Your task to perform on an android device: open chrome and create a bookmark for the current page Image 0: 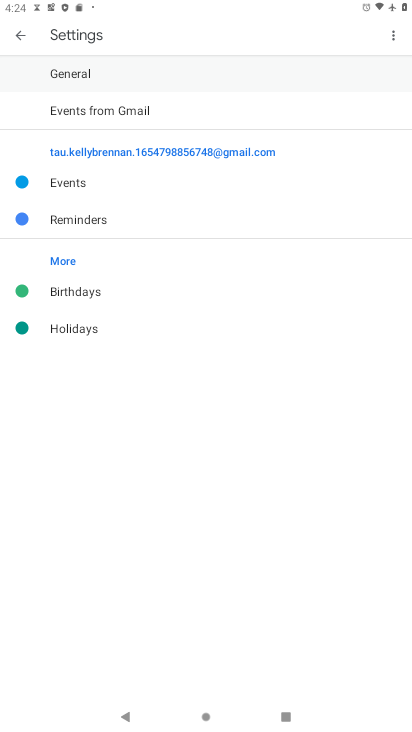
Step 0: click (24, 36)
Your task to perform on an android device: open chrome and create a bookmark for the current page Image 1: 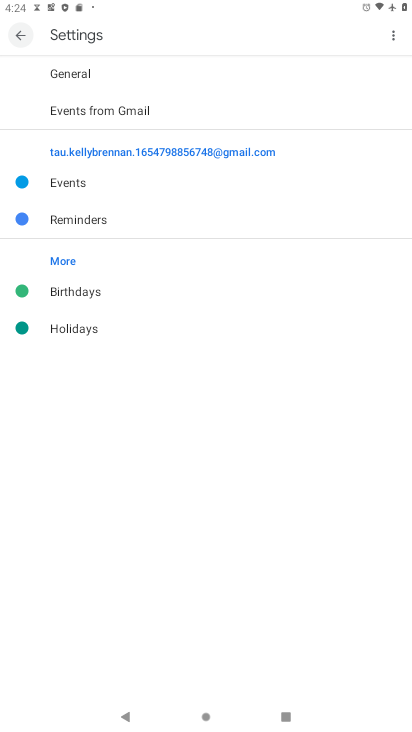
Step 1: click (22, 32)
Your task to perform on an android device: open chrome and create a bookmark for the current page Image 2: 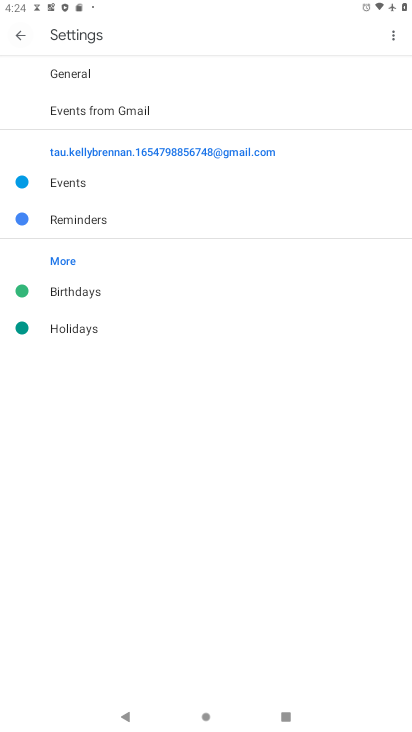
Step 2: click (22, 32)
Your task to perform on an android device: open chrome and create a bookmark for the current page Image 3: 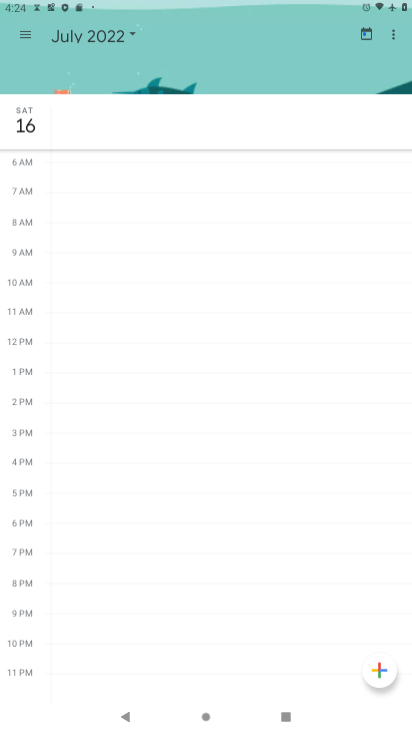
Step 3: click (22, 32)
Your task to perform on an android device: open chrome and create a bookmark for the current page Image 4: 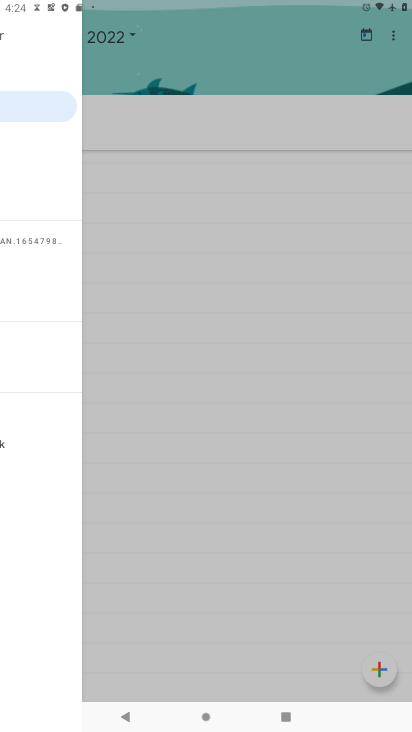
Step 4: click (21, 31)
Your task to perform on an android device: open chrome and create a bookmark for the current page Image 5: 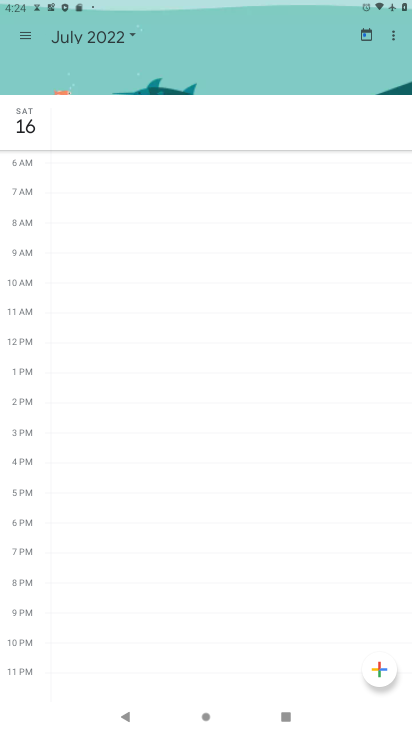
Step 5: press home button
Your task to perform on an android device: open chrome and create a bookmark for the current page Image 6: 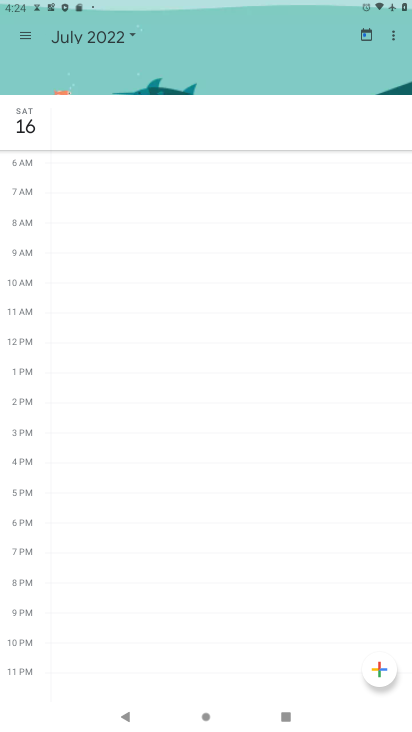
Step 6: press home button
Your task to perform on an android device: open chrome and create a bookmark for the current page Image 7: 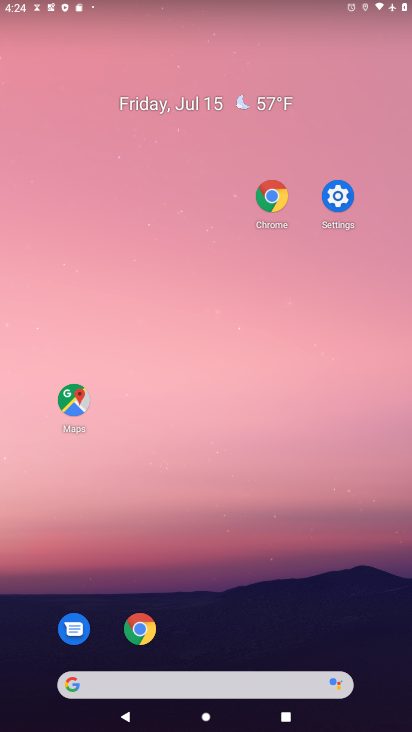
Step 7: drag from (341, 626) to (261, 95)
Your task to perform on an android device: open chrome and create a bookmark for the current page Image 8: 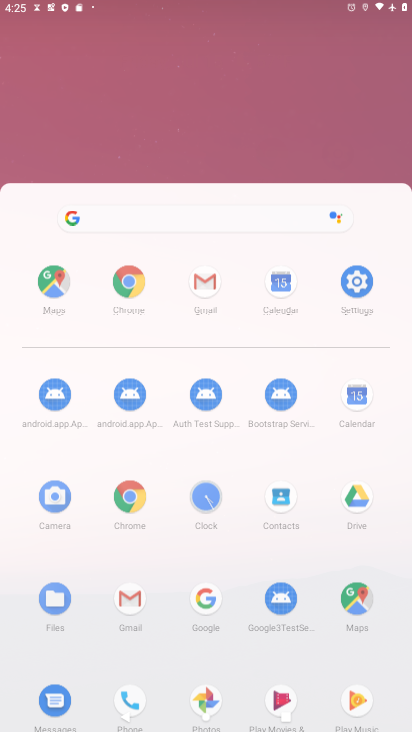
Step 8: drag from (297, 562) to (261, 120)
Your task to perform on an android device: open chrome and create a bookmark for the current page Image 9: 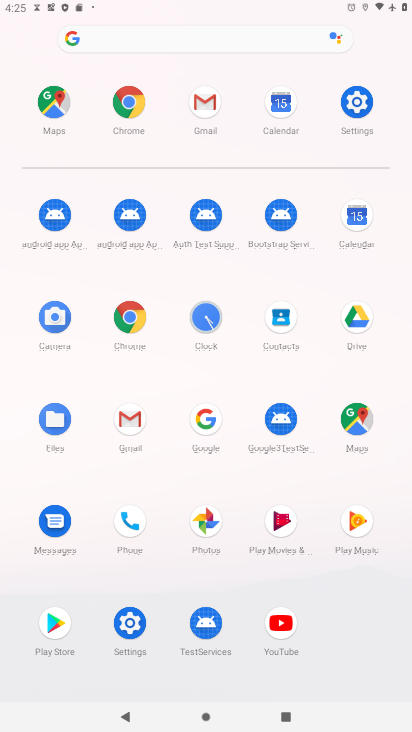
Step 9: drag from (198, 503) to (188, 138)
Your task to perform on an android device: open chrome and create a bookmark for the current page Image 10: 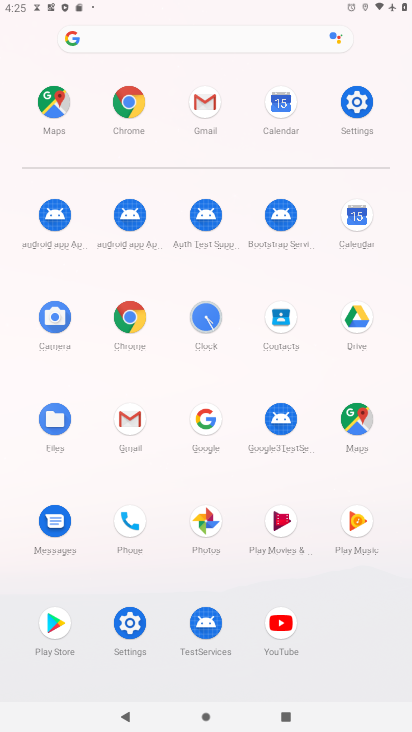
Step 10: click (126, 105)
Your task to perform on an android device: open chrome and create a bookmark for the current page Image 11: 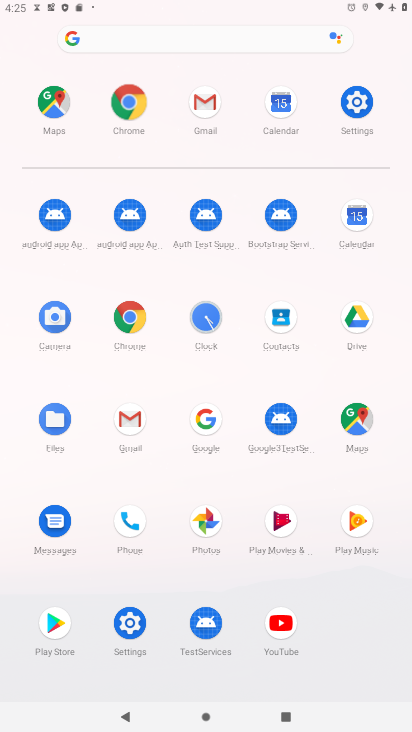
Step 11: click (131, 102)
Your task to perform on an android device: open chrome and create a bookmark for the current page Image 12: 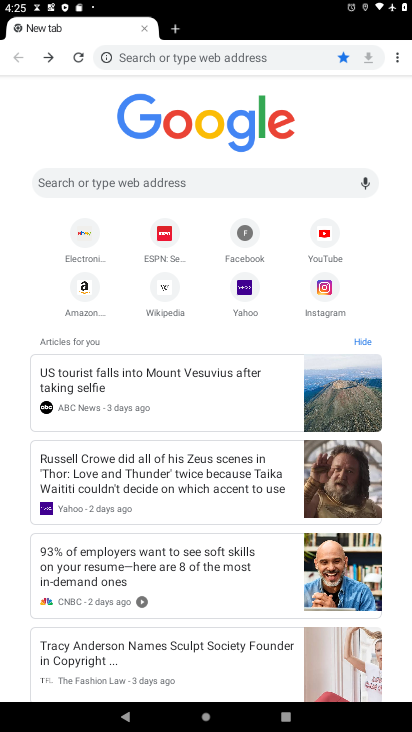
Step 12: click (69, 172)
Your task to perform on an android device: open chrome and create a bookmark for the current page Image 13: 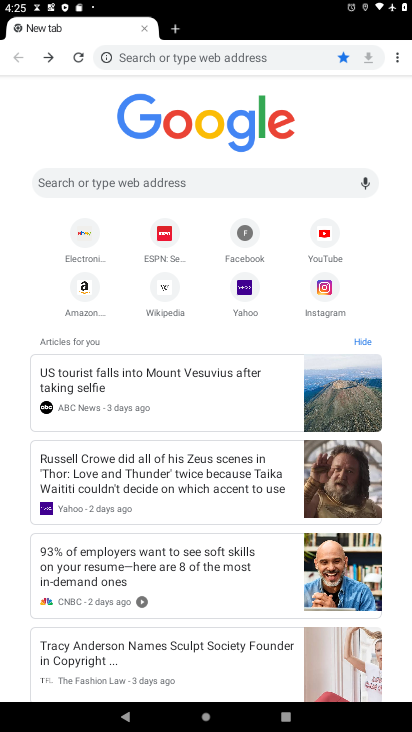
Step 13: click (78, 182)
Your task to perform on an android device: open chrome and create a bookmark for the current page Image 14: 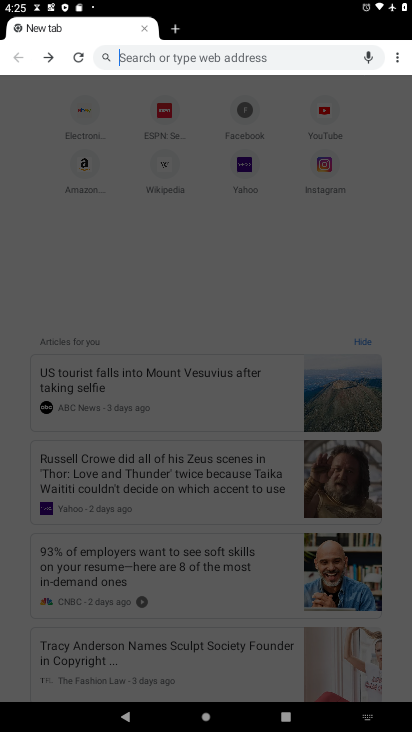
Step 14: type "x bzxz "
Your task to perform on an android device: open chrome and create a bookmark for the current page Image 15: 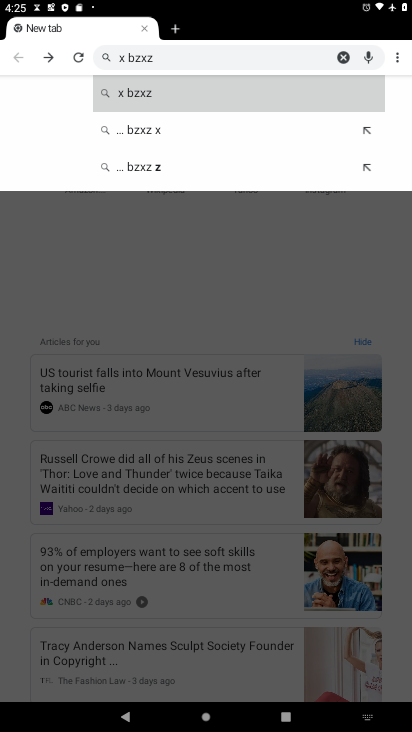
Step 15: click (177, 86)
Your task to perform on an android device: open chrome and create a bookmark for the current page Image 16: 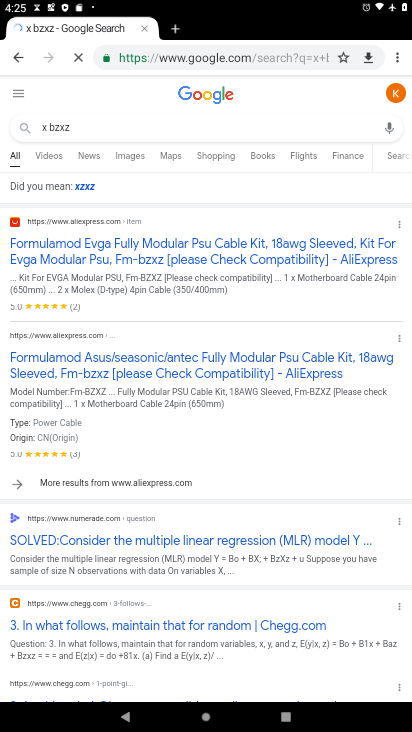
Step 16: click (342, 55)
Your task to perform on an android device: open chrome and create a bookmark for the current page Image 17: 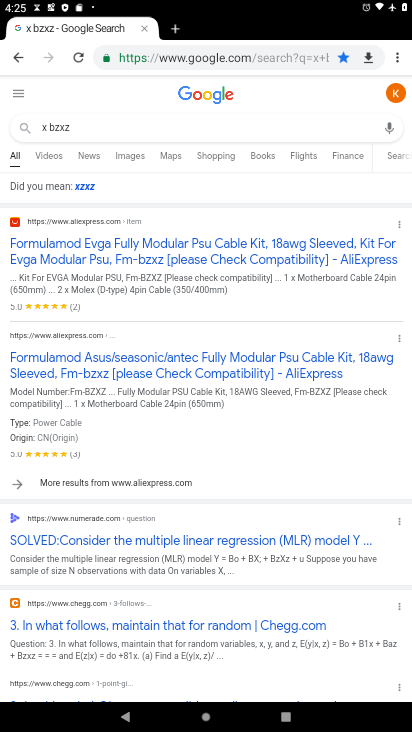
Step 17: task complete